Your task to perform on an android device: Open settings on Google Maps Image 0: 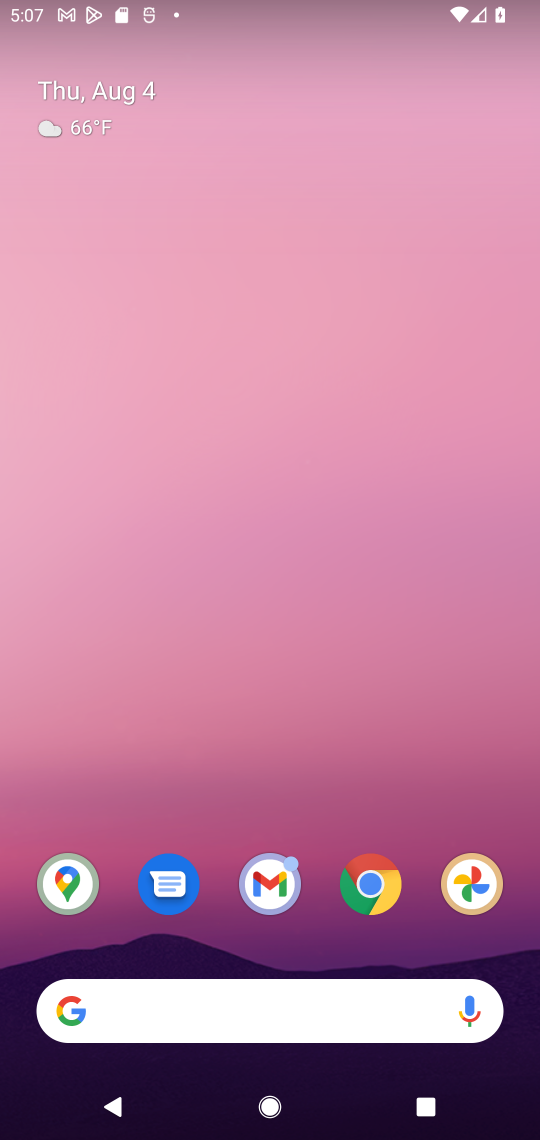
Step 0: click (377, 886)
Your task to perform on an android device: Open settings on Google Maps Image 1: 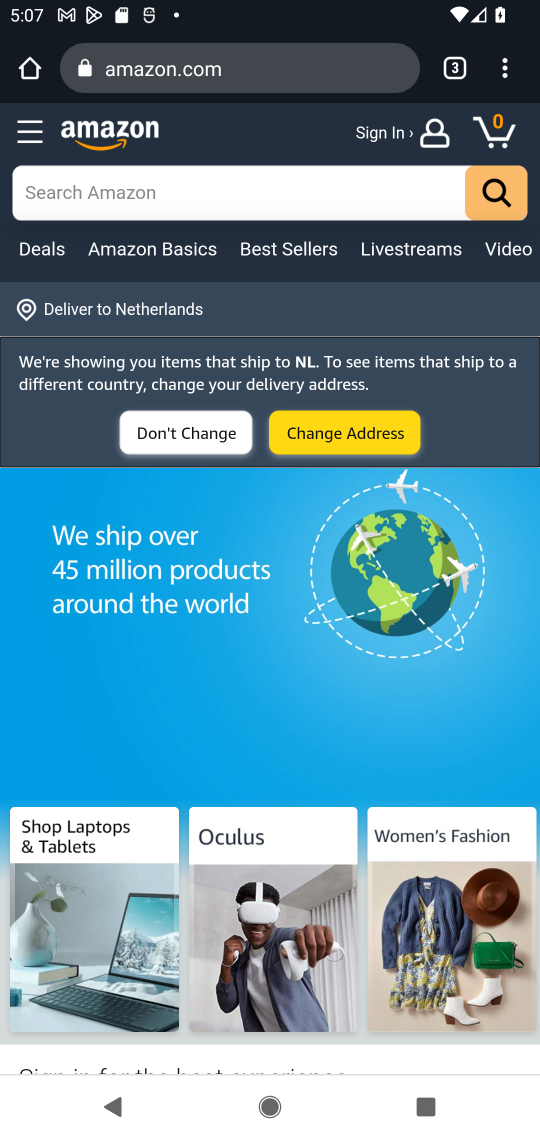
Step 1: press home button
Your task to perform on an android device: Open settings on Google Maps Image 2: 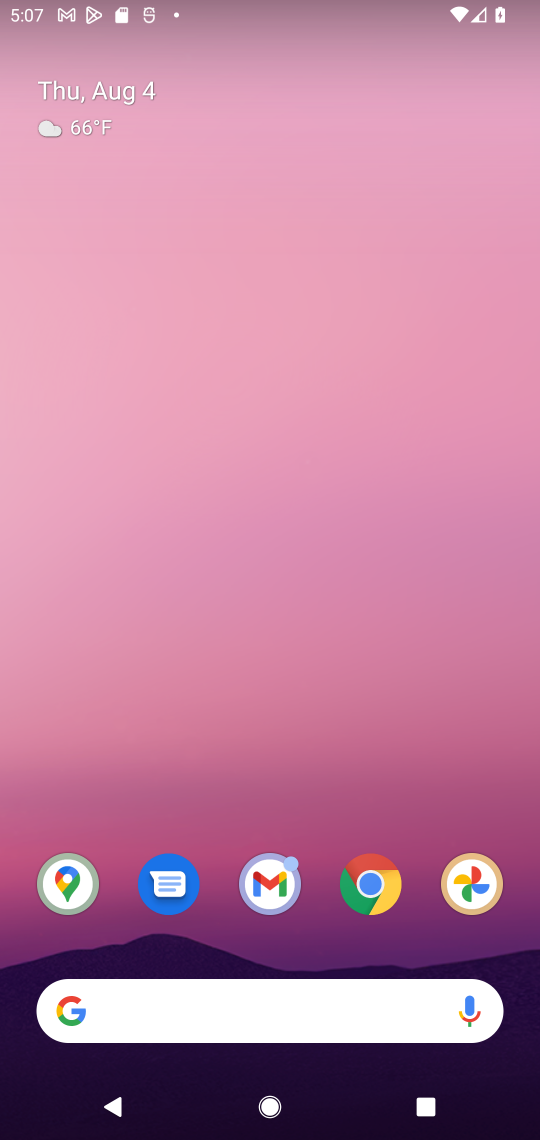
Step 2: click (66, 917)
Your task to perform on an android device: Open settings on Google Maps Image 3: 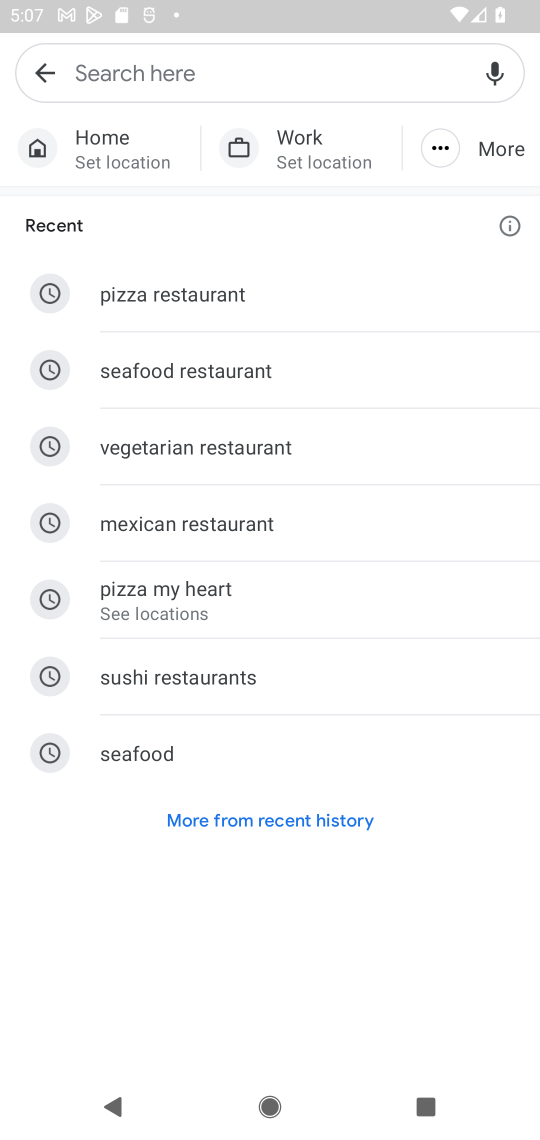
Step 3: task complete